Your task to perform on an android device: Open Google Maps and go to "Timeline" Image 0: 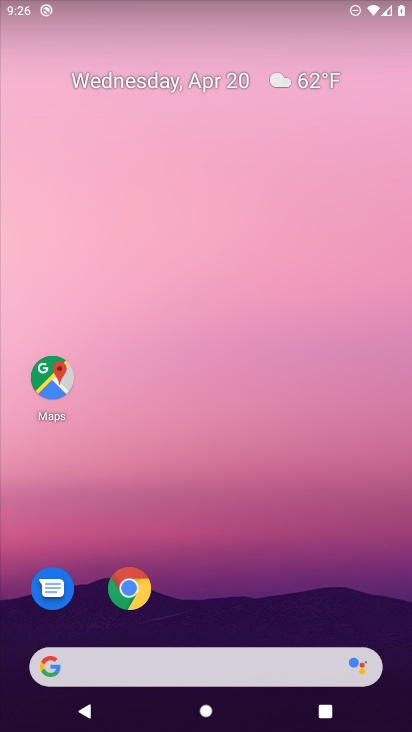
Step 0: click (50, 371)
Your task to perform on an android device: Open Google Maps and go to "Timeline" Image 1: 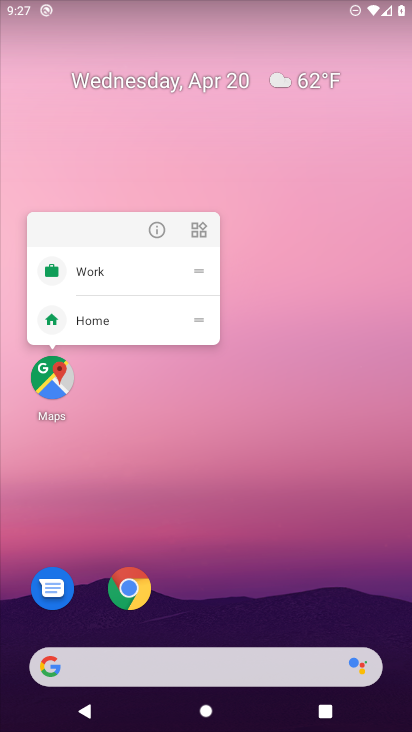
Step 1: click (108, 384)
Your task to perform on an android device: Open Google Maps and go to "Timeline" Image 2: 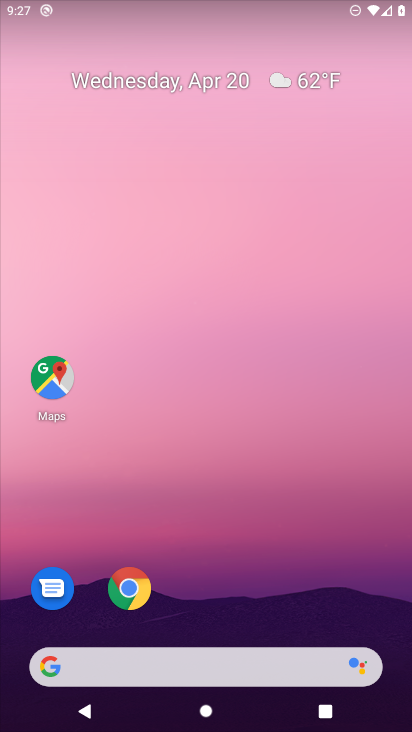
Step 2: click (52, 375)
Your task to perform on an android device: Open Google Maps and go to "Timeline" Image 3: 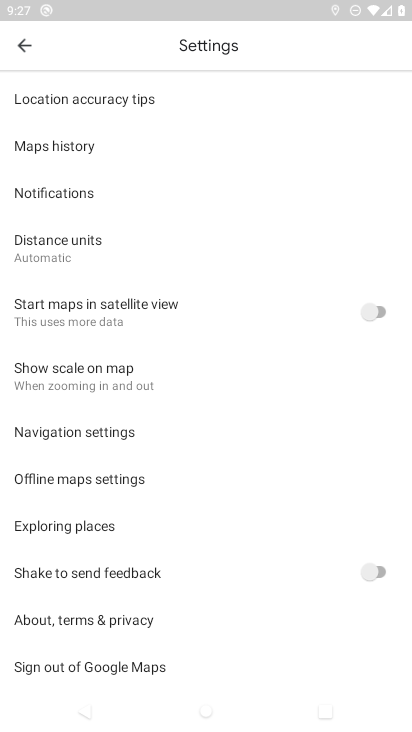
Step 3: click (21, 37)
Your task to perform on an android device: Open Google Maps and go to "Timeline" Image 4: 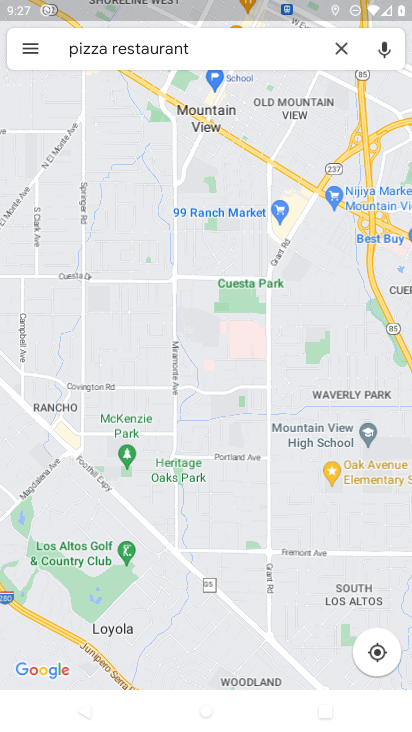
Step 4: click (29, 49)
Your task to perform on an android device: Open Google Maps and go to "Timeline" Image 5: 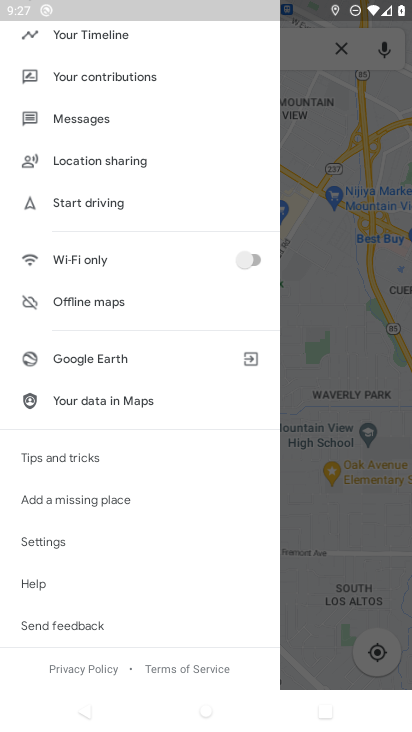
Step 5: click (104, 31)
Your task to perform on an android device: Open Google Maps and go to "Timeline" Image 6: 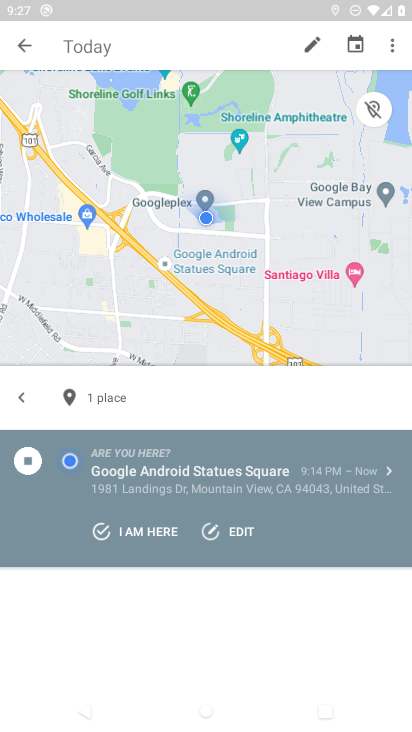
Step 6: task complete